Your task to perform on an android device: toggle show notifications on the lock screen Image 0: 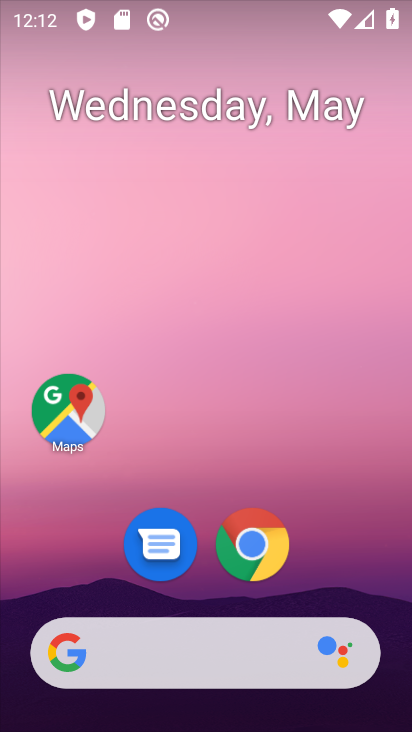
Step 0: drag from (356, 569) to (303, 141)
Your task to perform on an android device: toggle show notifications on the lock screen Image 1: 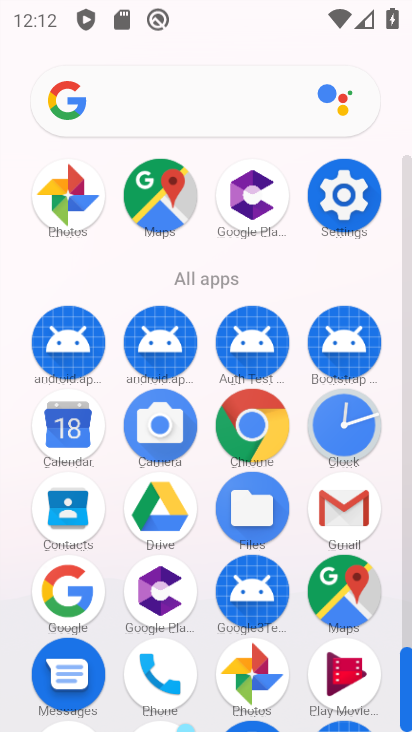
Step 1: click (332, 187)
Your task to perform on an android device: toggle show notifications on the lock screen Image 2: 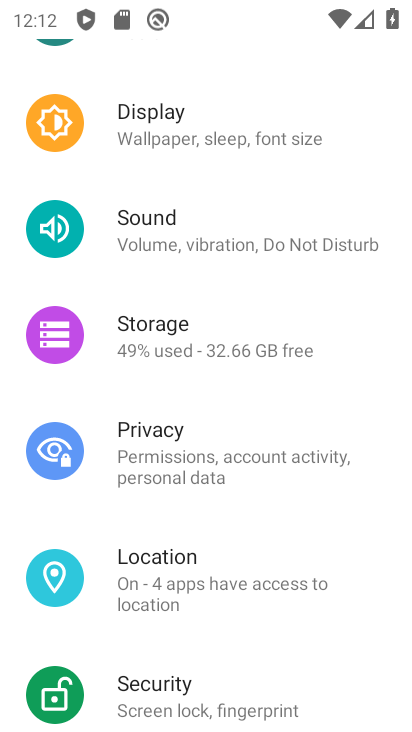
Step 2: drag from (231, 191) to (202, 577)
Your task to perform on an android device: toggle show notifications on the lock screen Image 3: 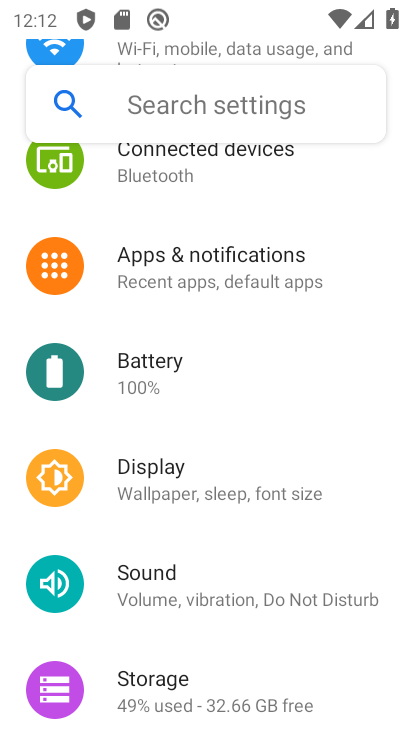
Step 3: click (219, 292)
Your task to perform on an android device: toggle show notifications on the lock screen Image 4: 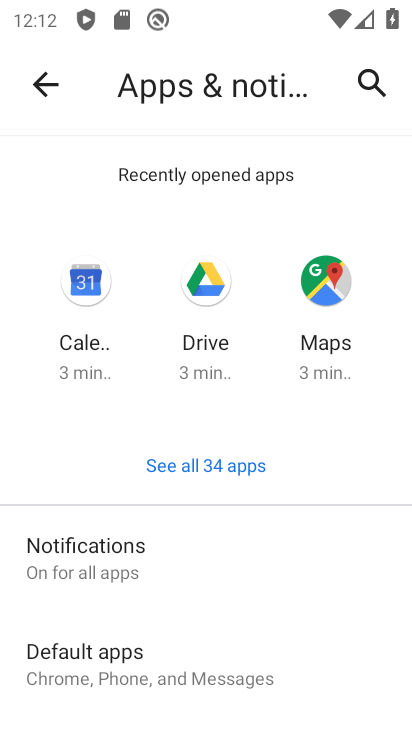
Step 4: click (158, 555)
Your task to perform on an android device: toggle show notifications on the lock screen Image 5: 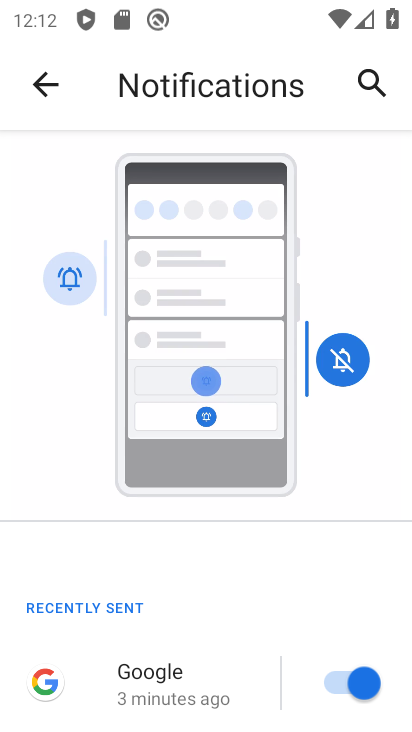
Step 5: drag from (170, 657) to (238, 249)
Your task to perform on an android device: toggle show notifications on the lock screen Image 6: 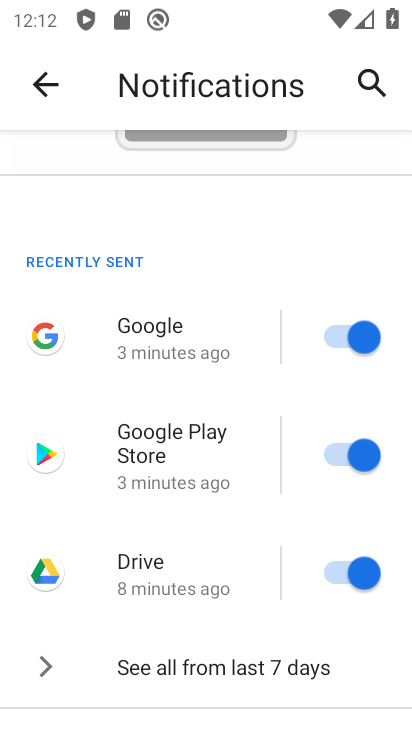
Step 6: drag from (193, 626) to (243, 277)
Your task to perform on an android device: toggle show notifications on the lock screen Image 7: 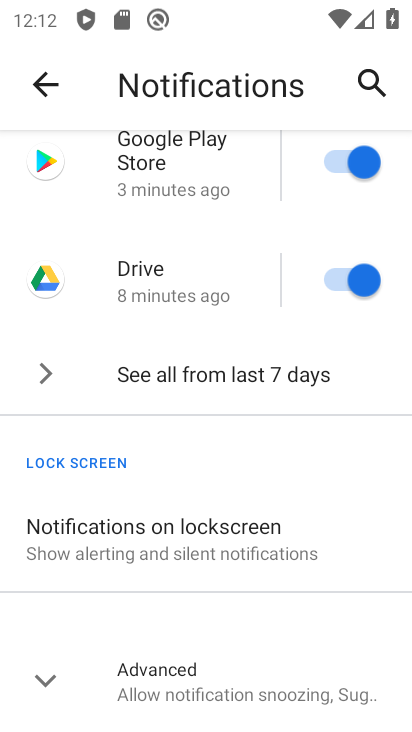
Step 7: click (182, 662)
Your task to perform on an android device: toggle show notifications on the lock screen Image 8: 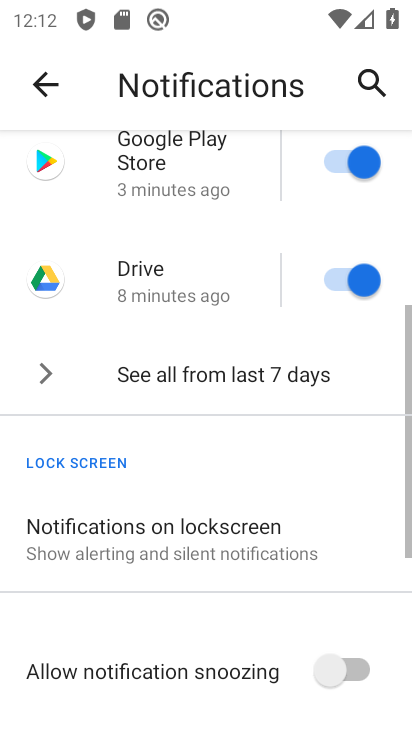
Step 8: drag from (186, 656) to (237, 303)
Your task to perform on an android device: toggle show notifications on the lock screen Image 9: 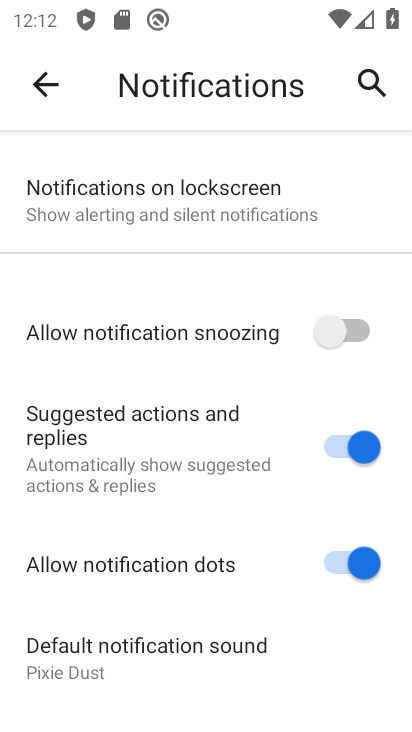
Step 9: click (182, 239)
Your task to perform on an android device: toggle show notifications on the lock screen Image 10: 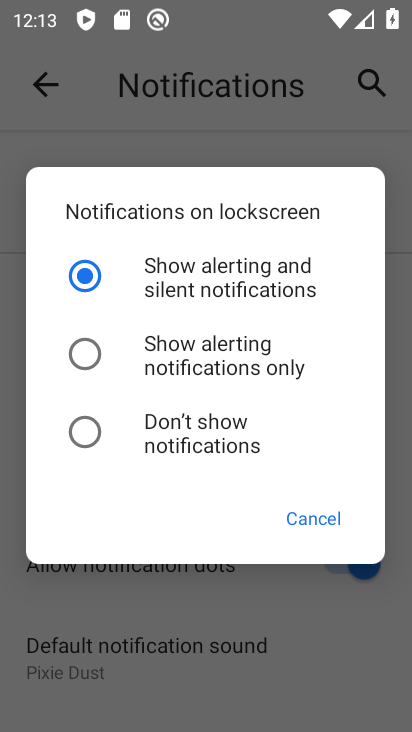
Step 10: click (192, 363)
Your task to perform on an android device: toggle show notifications on the lock screen Image 11: 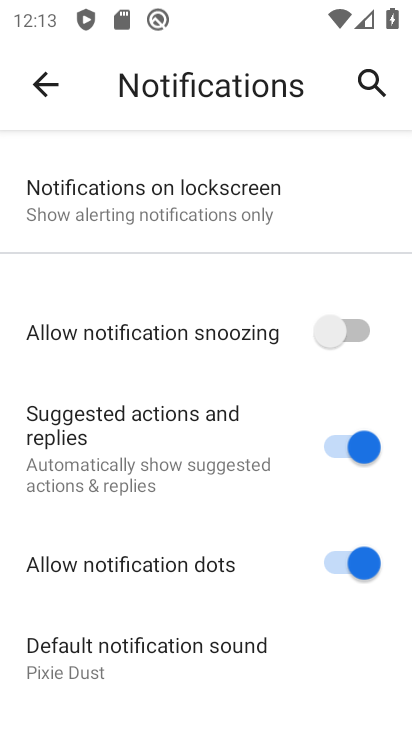
Step 11: task complete